Your task to perform on an android device: toggle location history Image 0: 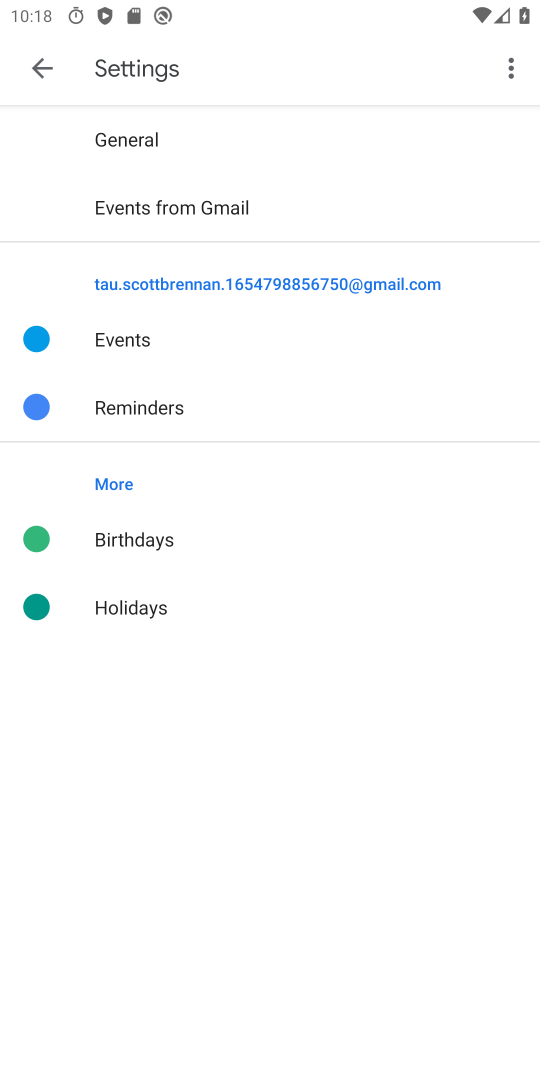
Step 0: press home button
Your task to perform on an android device: toggle location history Image 1: 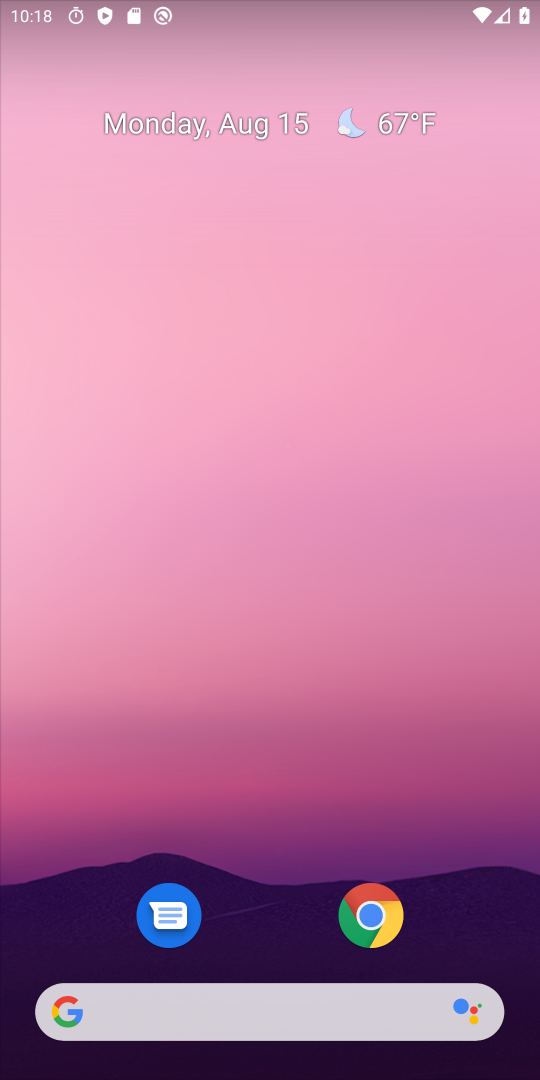
Step 1: drag from (490, 879) to (454, 249)
Your task to perform on an android device: toggle location history Image 2: 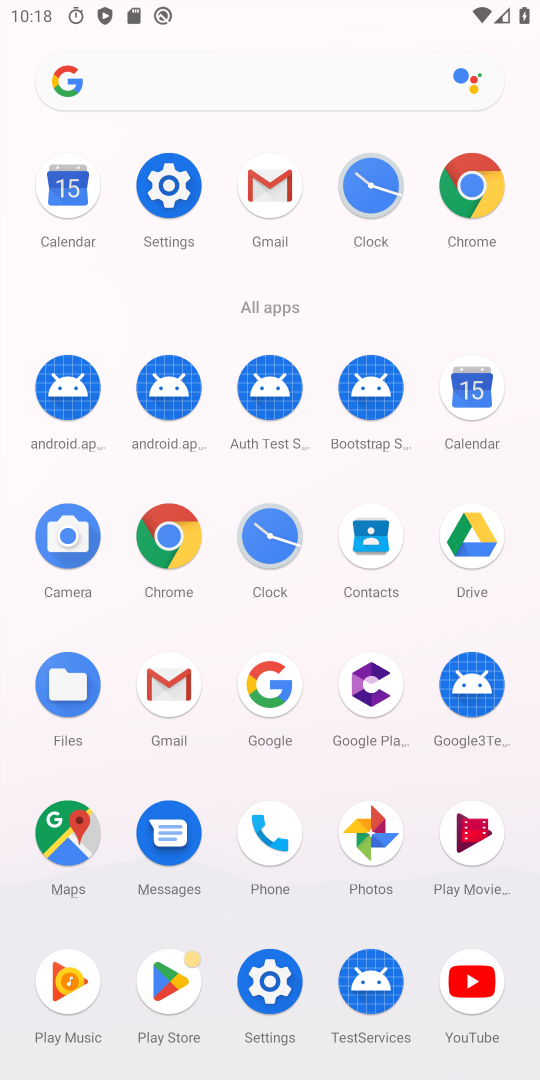
Step 2: click (273, 966)
Your task to perform on an android device: toggle location history Image 3: 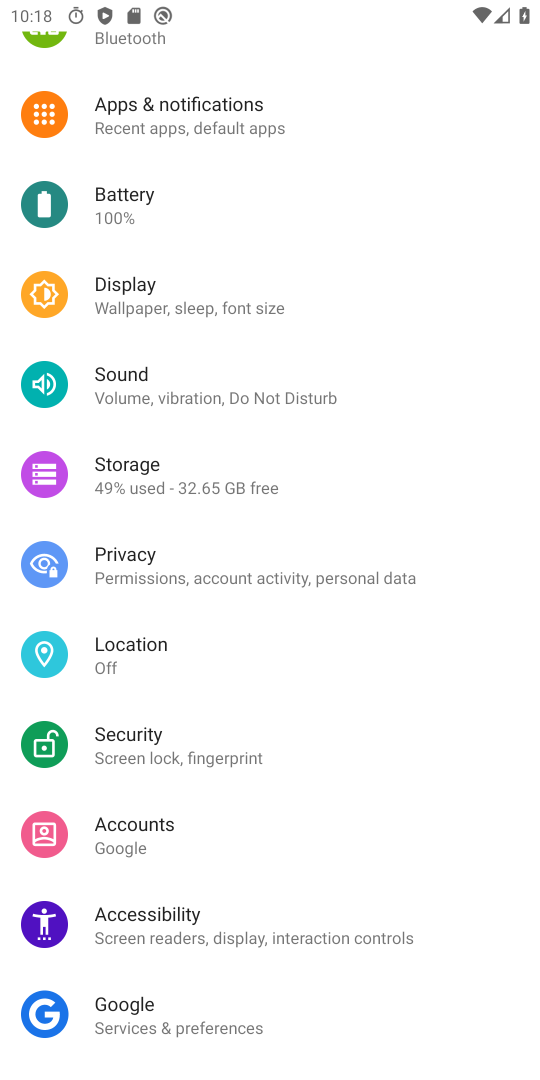
Step 3: click (173, 649)
Your task to perform on an android device: toggle location history Image 4: 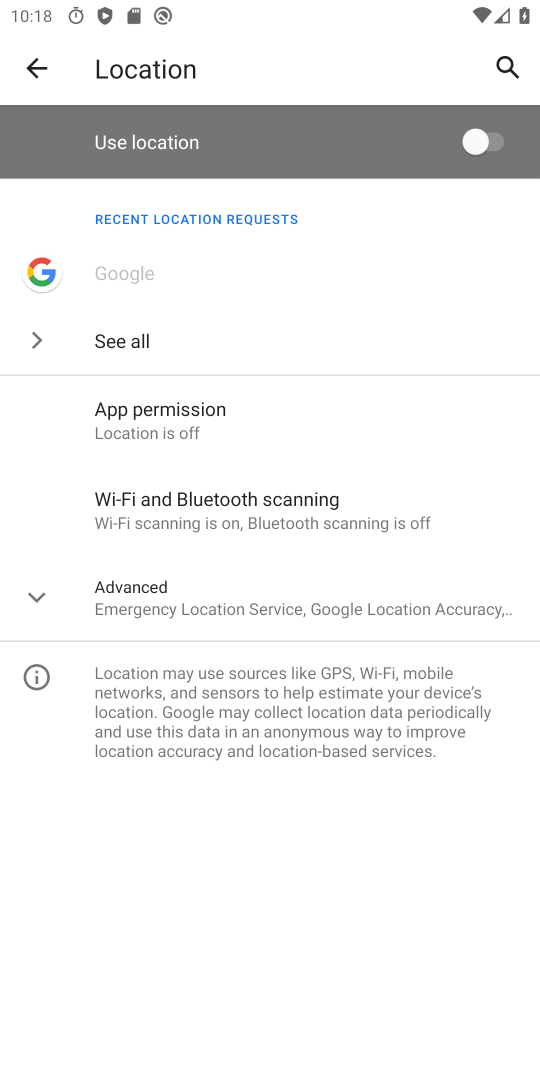
Step 4: click (215, 607)
Your task to perform on an android device: toggle location history Image 5: 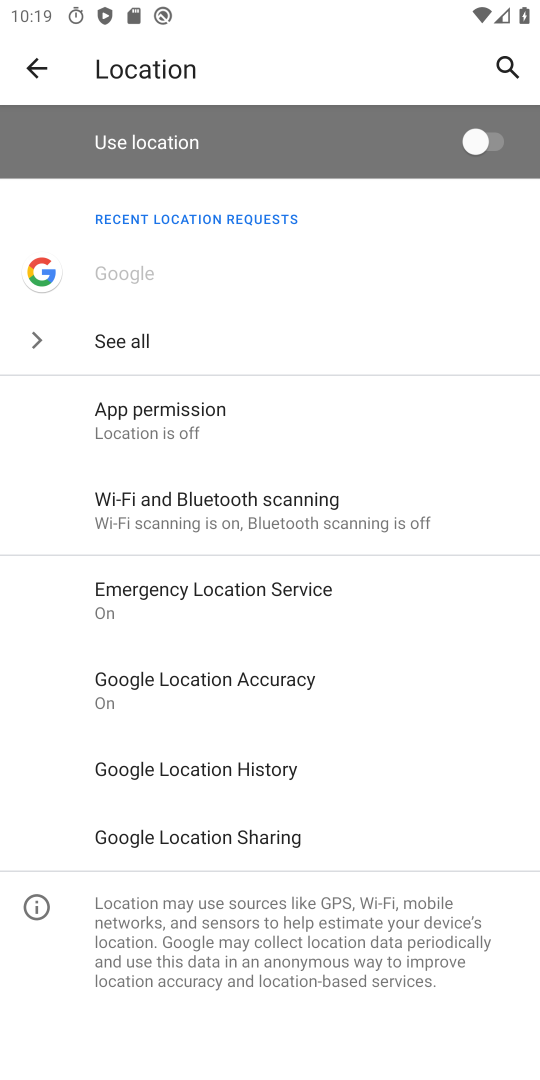
Step 5: click (267, 769)
Your task to perform on an android device: toggle location history Image 6: 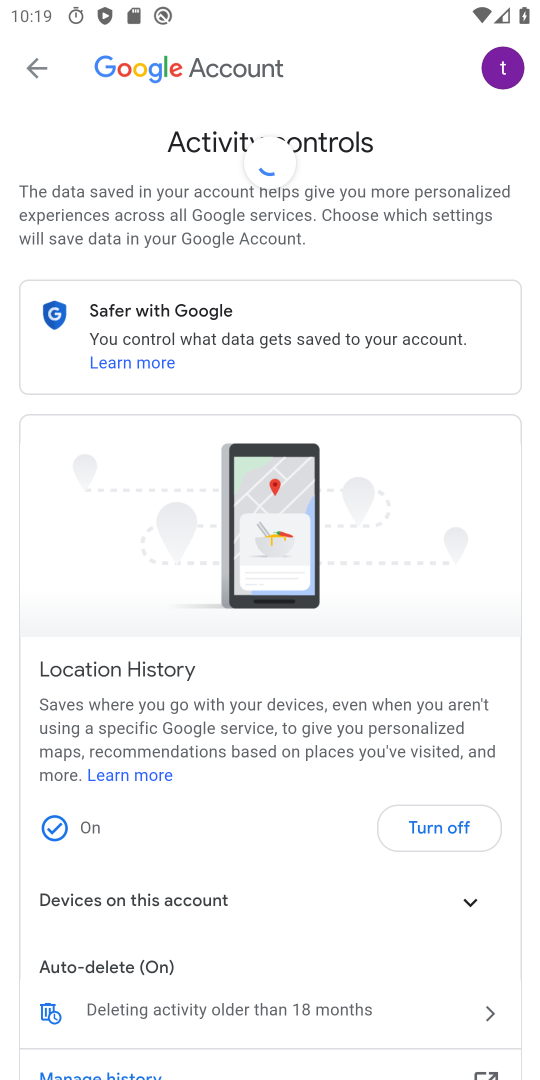
Step 6: drag from (368, 892) to (361, 394)
Your task to perform on an android device: toggle location history Image 7: 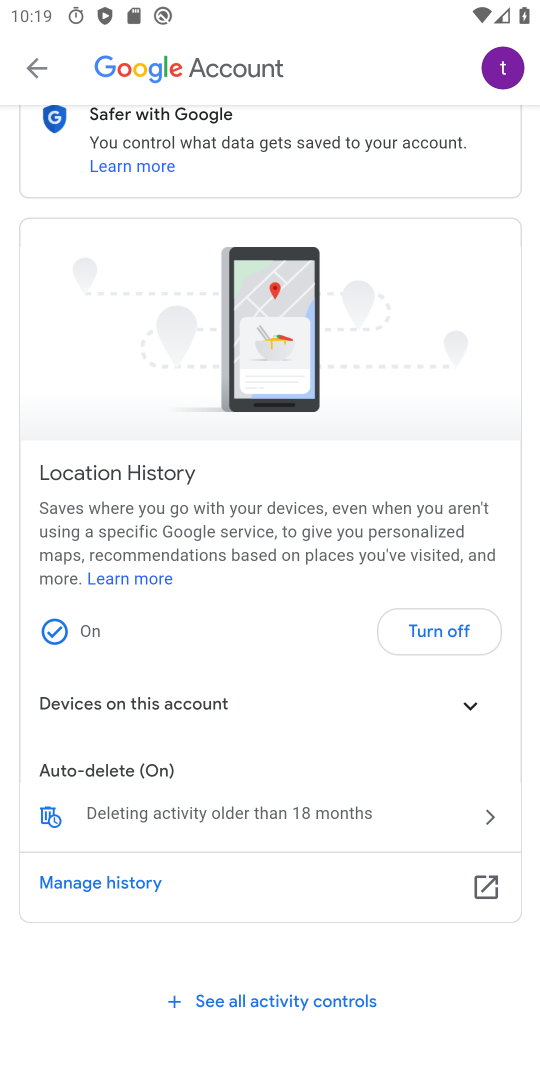
Step 7: click (464, 635)
Your task to perform on an android device: toggle location history Image 8: 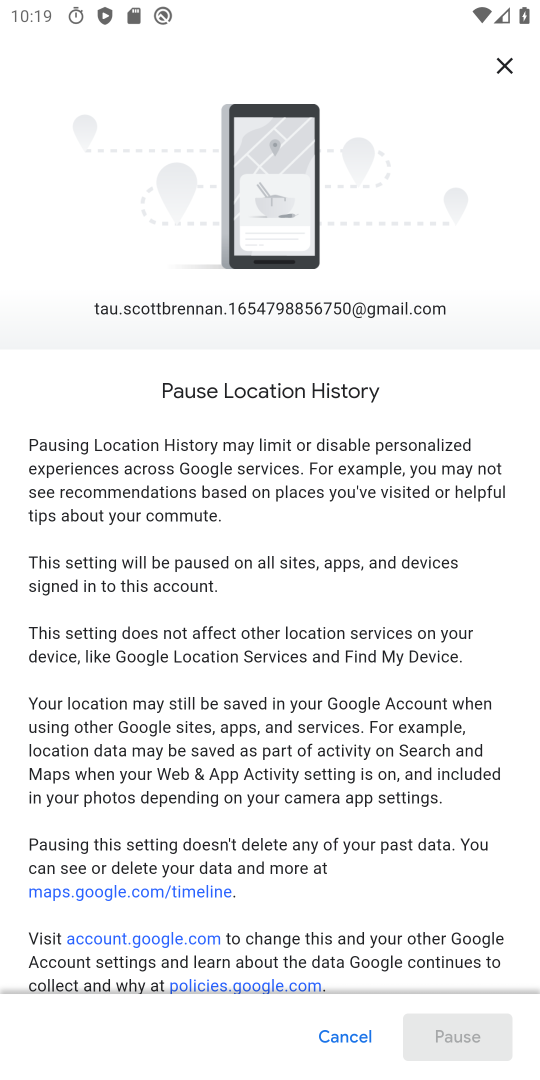
Step 8: drag from (416, 791) to (395, 267)
Your task to perform on an android device: toggle location history Image 9: 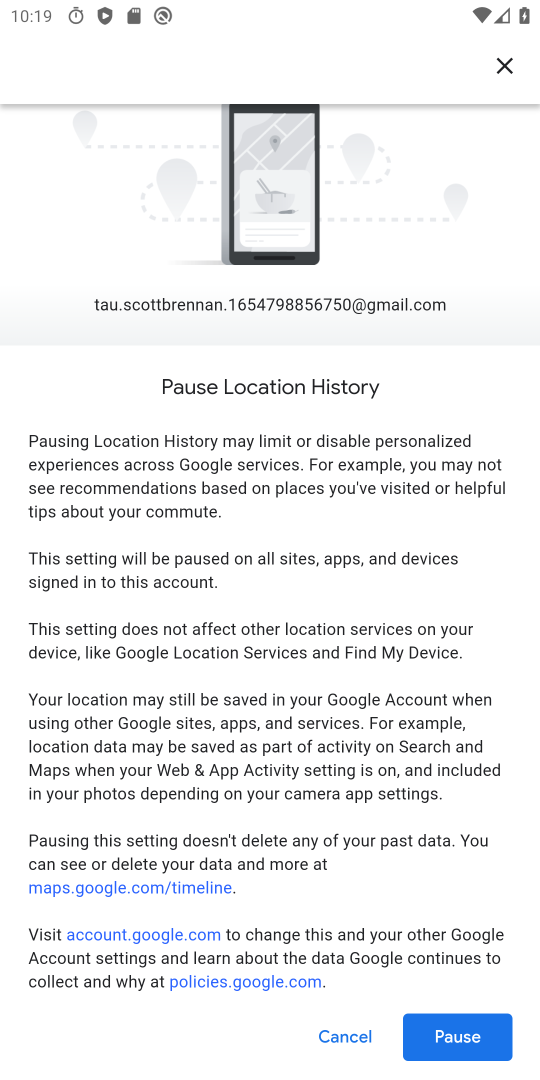
Step 9: click (457, 1032)
Your task to perform on an android device: toggle location history Image 10: 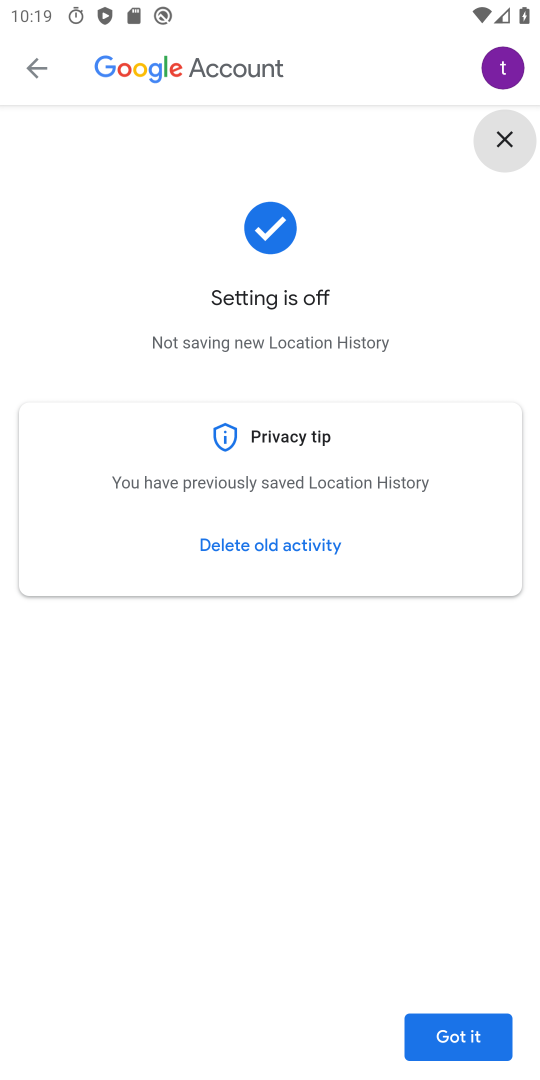
Step 10: click (470, 1046)
Your task to perform on an android device: toggle location history Image 11: 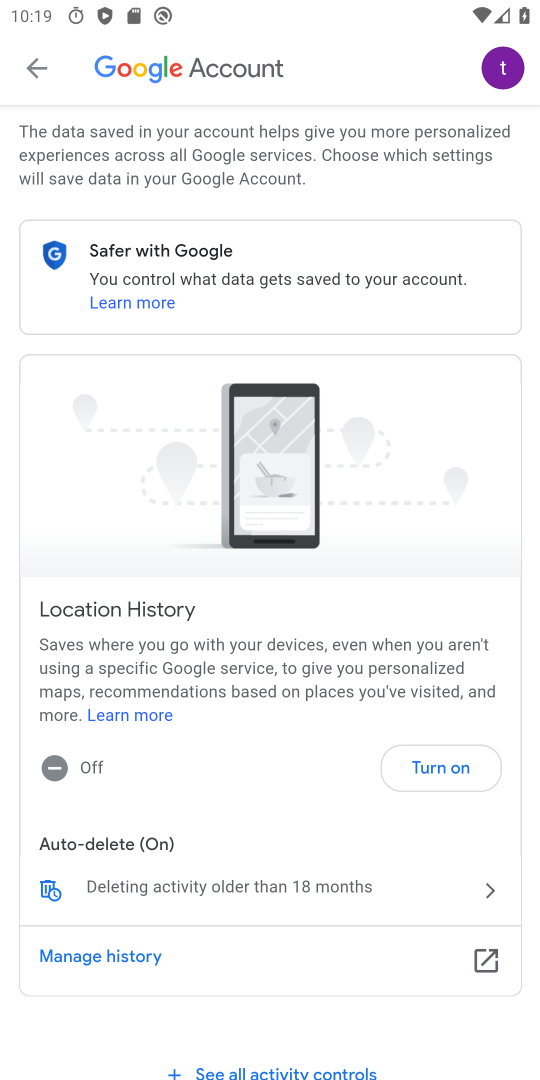
Step 11: task complete